Your task to perform on an android device: Search for the new Apple Watch on Best Buy Image 0: 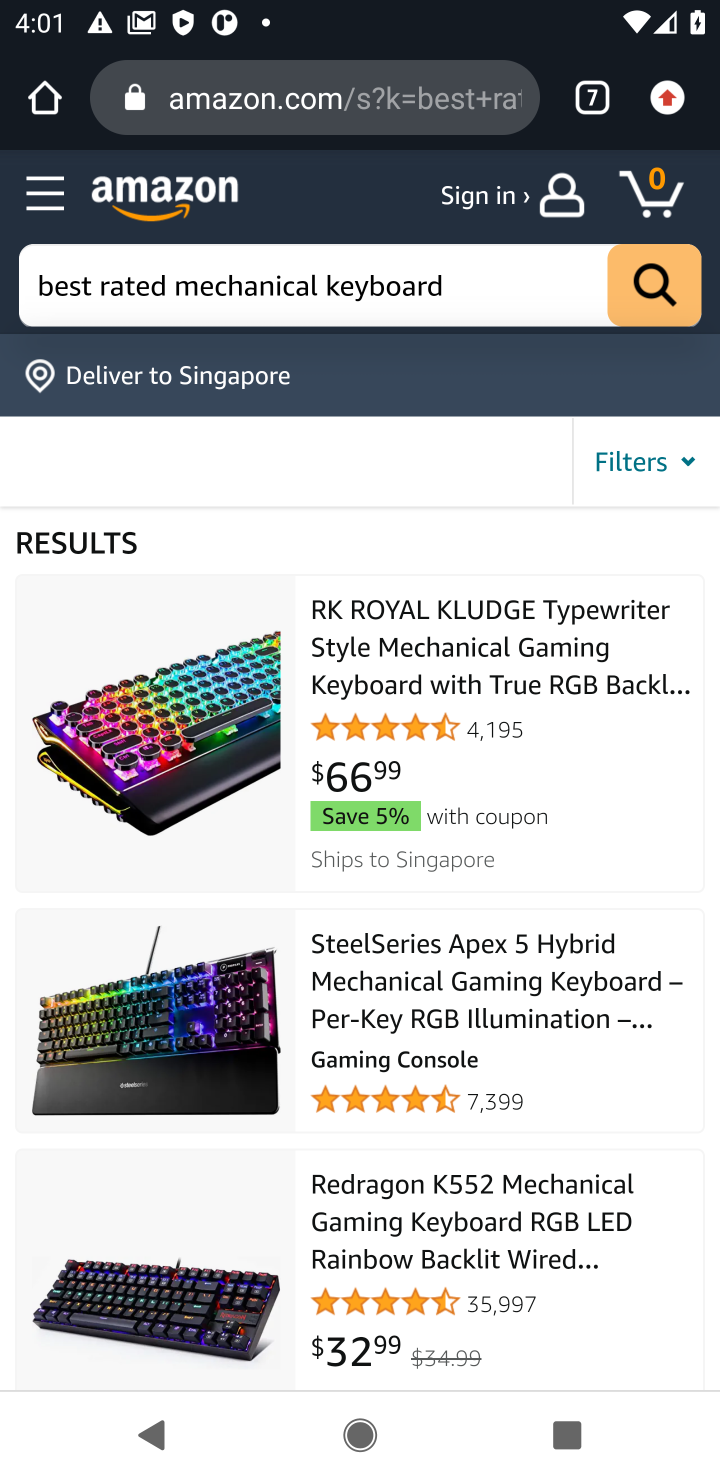
Step 0: task complete